Your task to perform on an android device: Open Wikipedia Image 0: 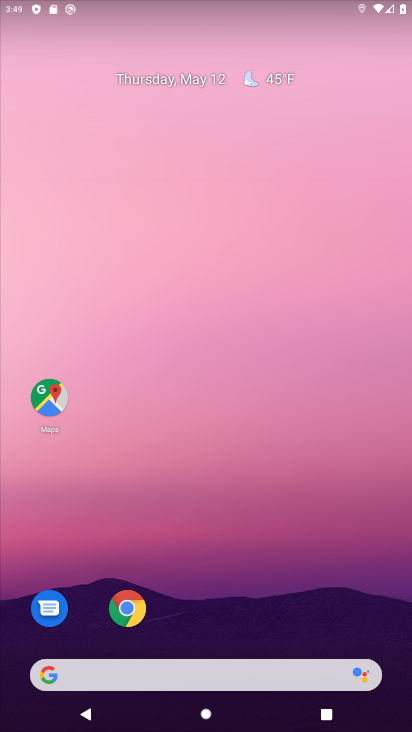
Step 0: press home button
Your task to perform on an android device: Open Wikipedia Image 1: 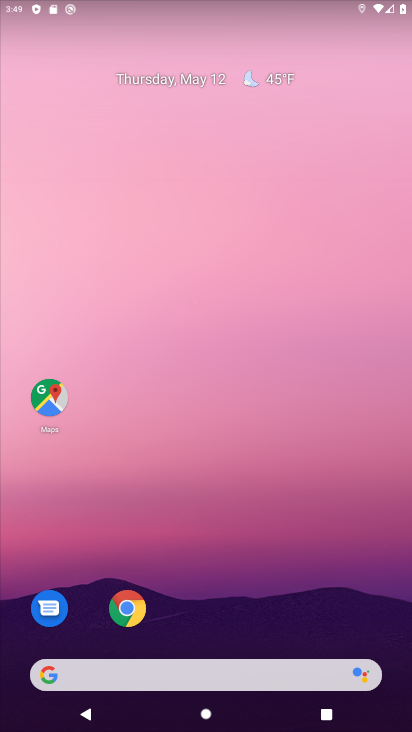
Step 1: drag from (326, 504) to (305, 75)
Your task to perform on an android device: Open Wikipedia Image 2: 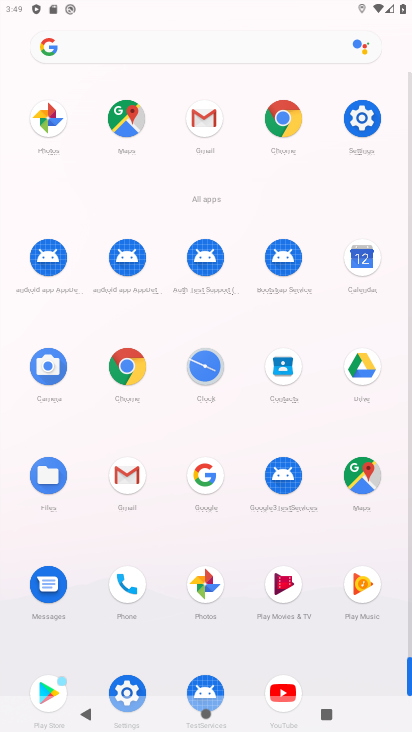
Step 2: click (123, 358)
Your task to perform on an android device: Open Wikipedia Image 3: 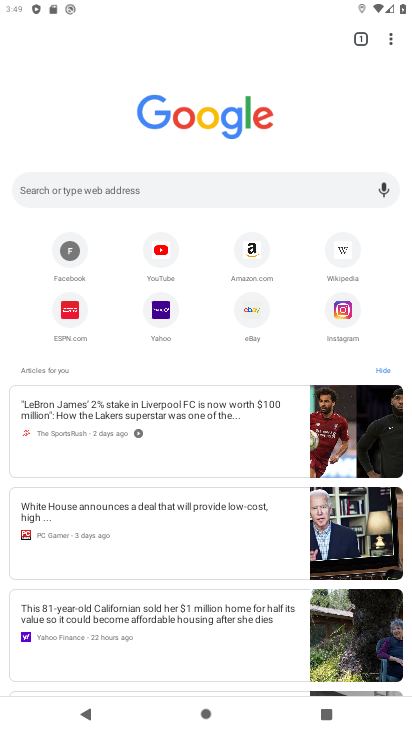
Step 3: click (339, 245)
Your task to perform on an android device: Open Wikipedia Image 4: 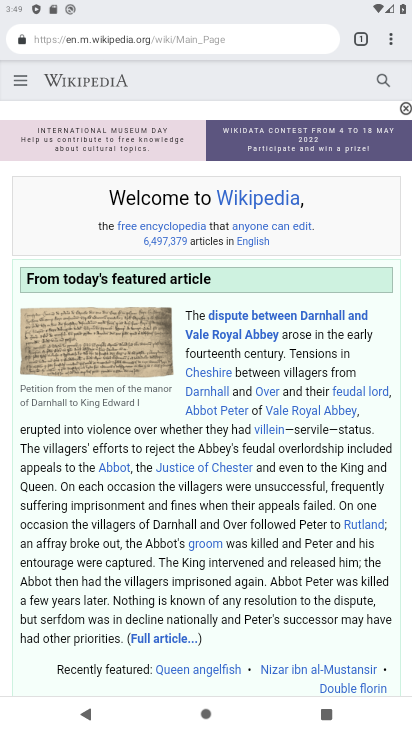
Step 4: task complete